Your task to perform on an android device: Go to settings Image 0: 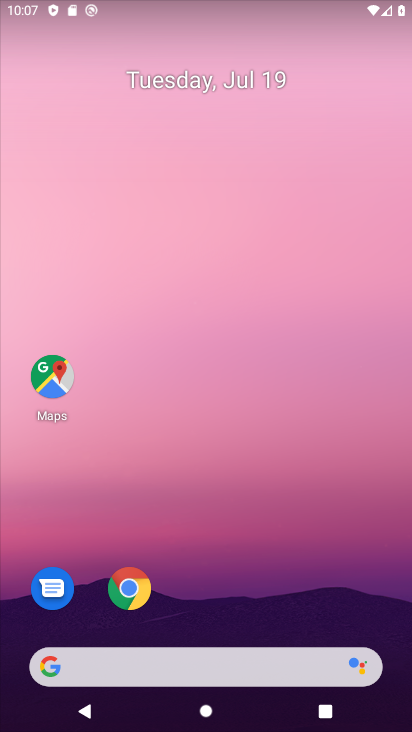
Step 0: drag from (203, 542) to (250, 129)
Your task to perform on an android device: Go to settings Image 1: 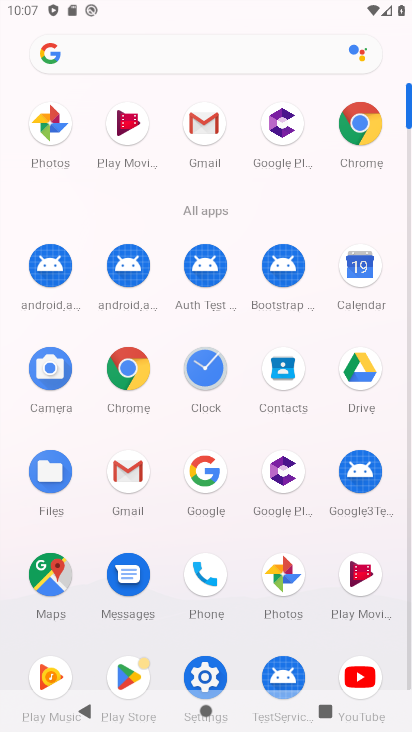
Step 1: click (211, 666)
Your task to perform on an android device: Go to settings Image 2: 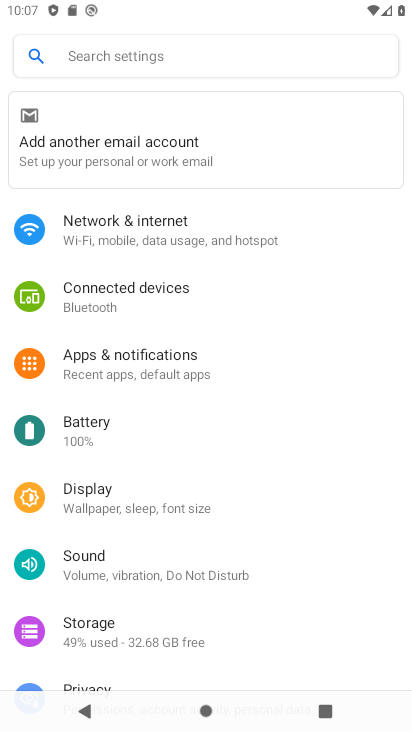
Step 2: task complete